Your task to perform on an android device: Go to battery settings Image 0: 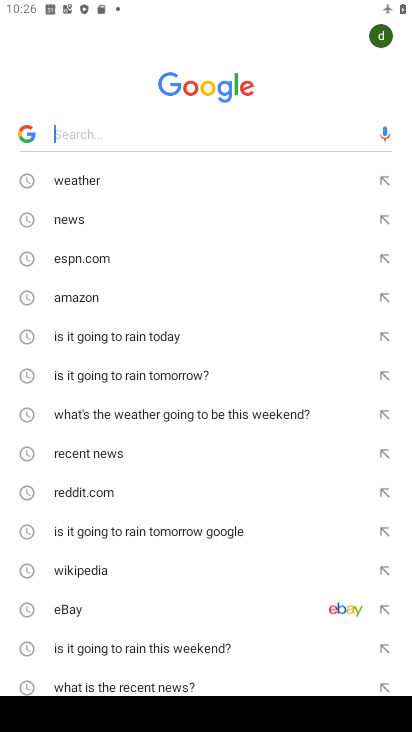
Step 0: press home button
Your task to perform on an android device: Go to battery settings Image 1: 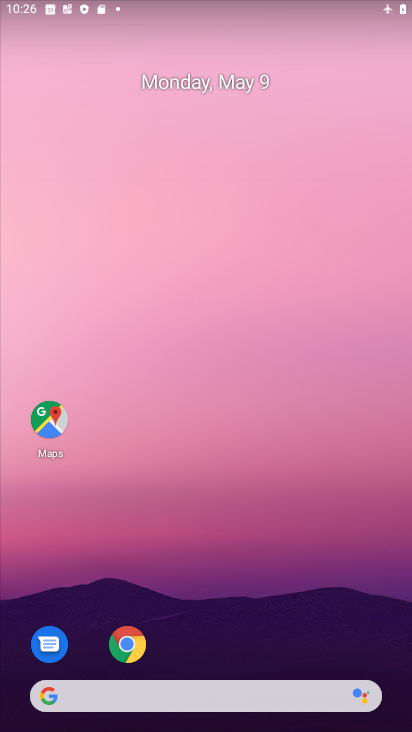
Step 1: drag from (176, 653) to (232, 104)
Your task to perform on an android device: Go to battery settings Image 2: 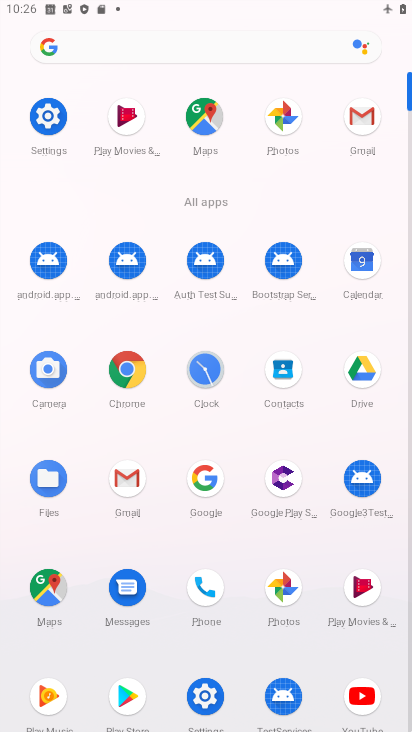
Step 2: click (57, 136)
Your task to perform on an android device: Go to battery settings Image 3: 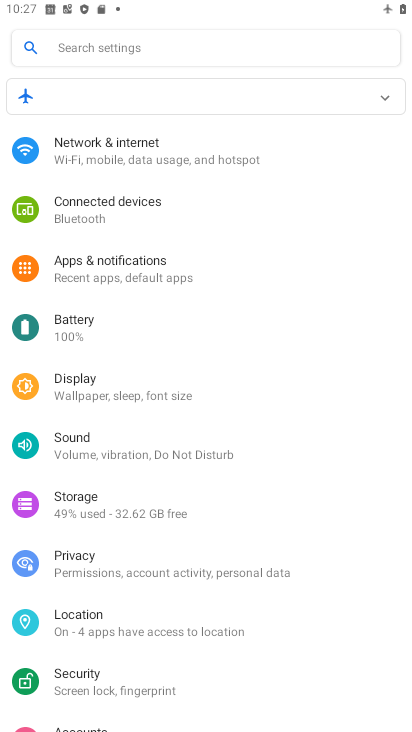
Step 3: click (114, 331)
Your task to perform on an android device: Go to battery settings Image 4: 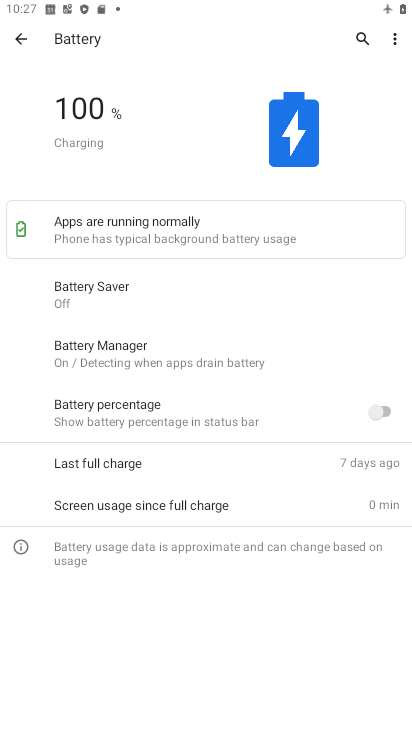
Step 4: click (392, 33)
Your task to perform on an android device: Go to battery settings Image 5: 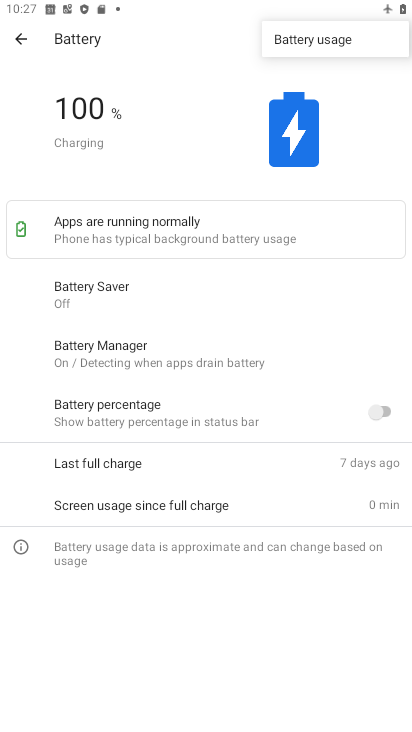
Step 5: click (342, 40)
Your task to perform on an android device: Go to battery settings Image 6: 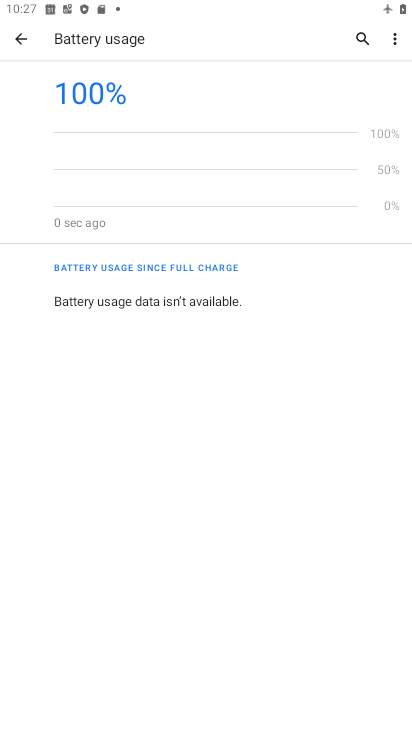
Step 6: task complete